Your task to perform on an android device: Open CNN.com Image 0: 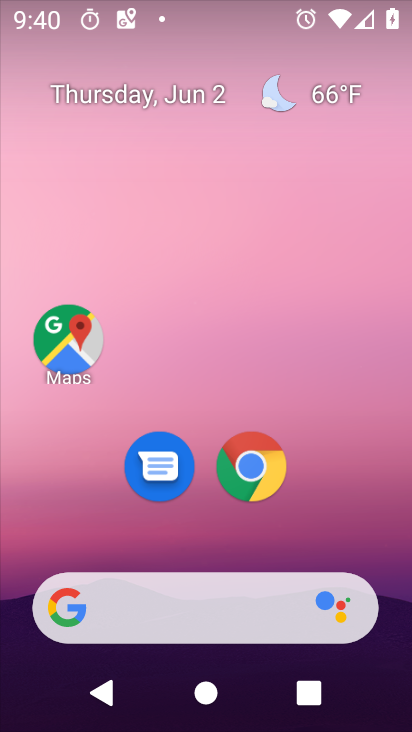
Step 0: click (243, 490)
Your task to perform on an android device: Open CNN.com Image 1: 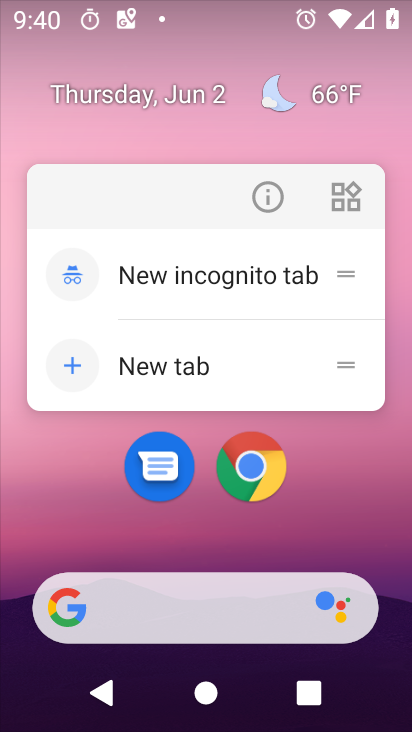
Step 1: click (255, 461)
Your task to perform on an android device: Open CNN.com Image 2: 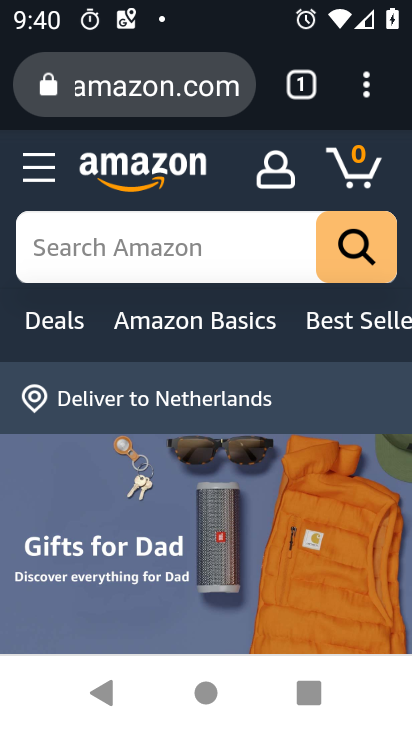
Step 2: click (132, 67)
Your task to perform on an android device: Open CNN.com Image 3: 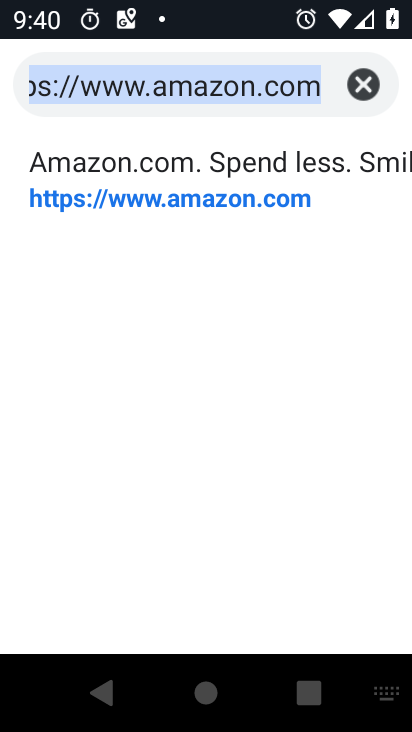
Step 3: type "CNN.com"
Your task to perform on an android device: Open CNN.com Image 4: 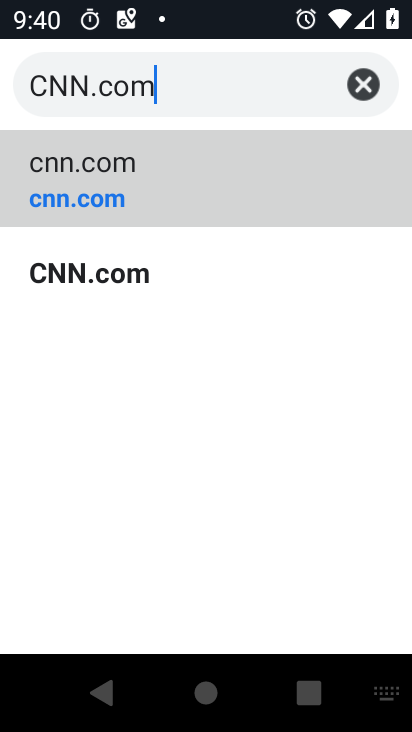
Step 4: type ""
Your task to perform on an android device: Open CNN.com Image 5: 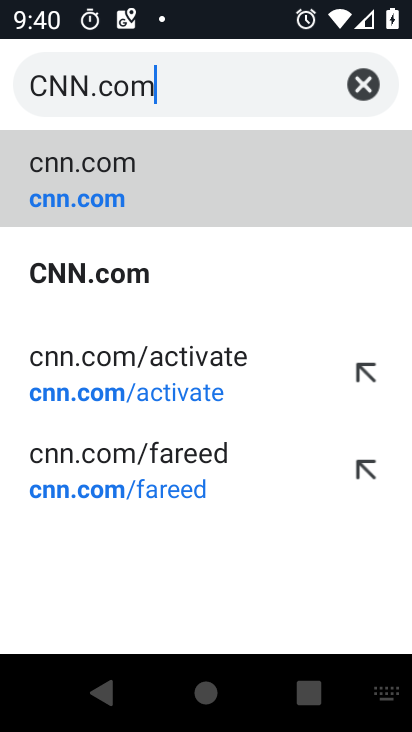
Step 5: click (52, 169)
Your task to perform on an android device: Open CNN.com Image 6: 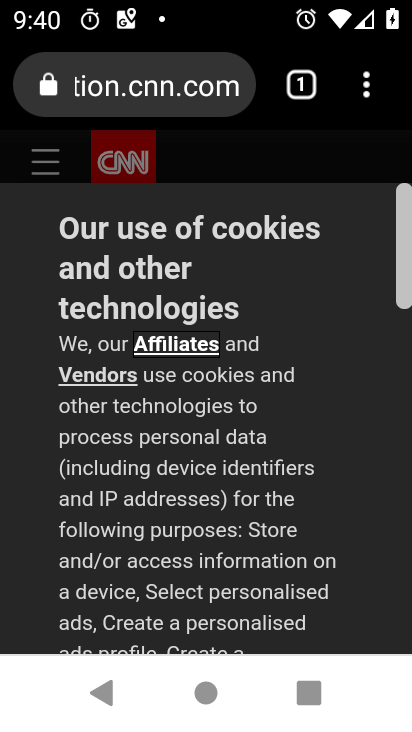
Step 6: task complete